Your task to perform on an android device: Open calendar and show me the first week of next month Image 0: 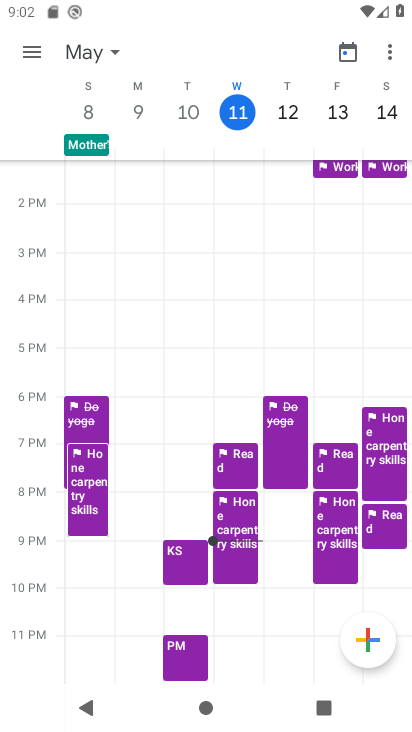
Step 0: press home button
Your task to perform on an android device: Open calendar and show me the first week of next month Image 1: 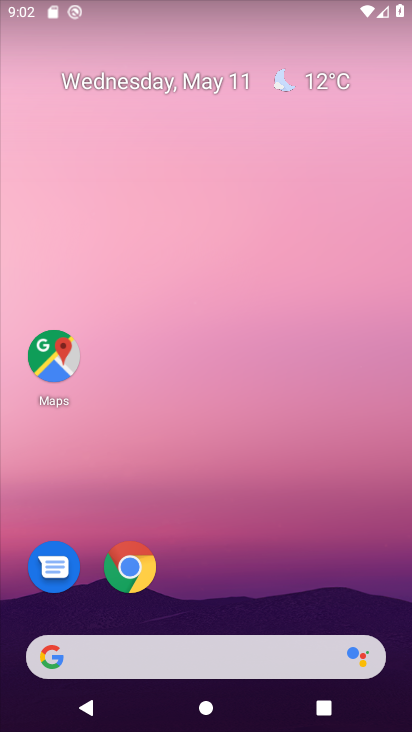
Step 1: drag from (251, 565) to (202, 120)
Your task to perform on an android device: Open calendar and show me the first week of next month Image 2: 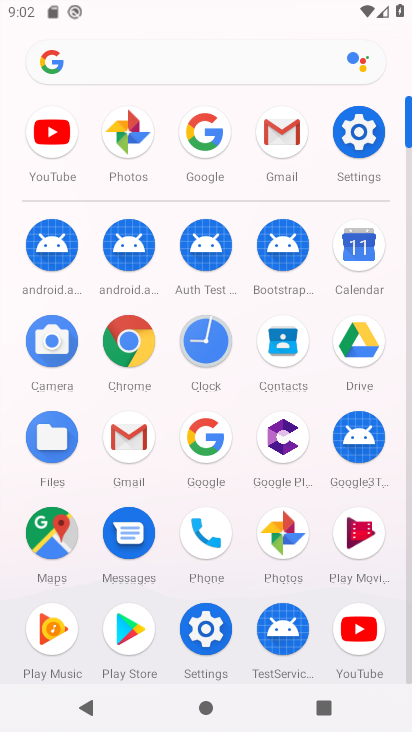
Step 2: click (284, 137)
Your task to perform on an android device: Open calendar and show me the first week of next month Image 3: 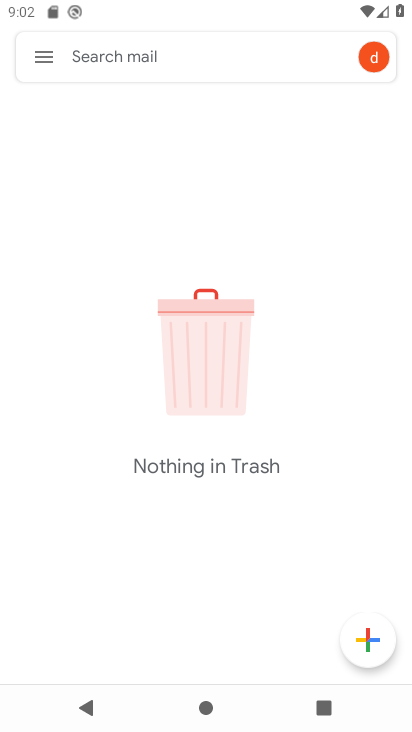
Step 3: press home button
Your task to perform on an android device: Open calendar and show me the first week of next month Image 4: 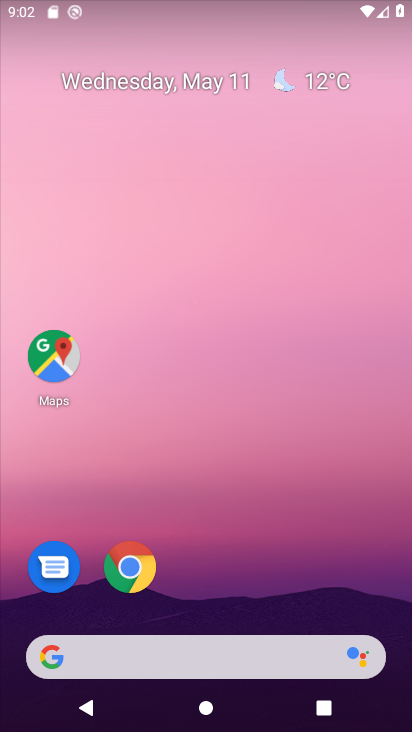
Step 4: click (161, 84)
Your task to perform on an android device: Open calendar and show me the first week of next month Image 5: 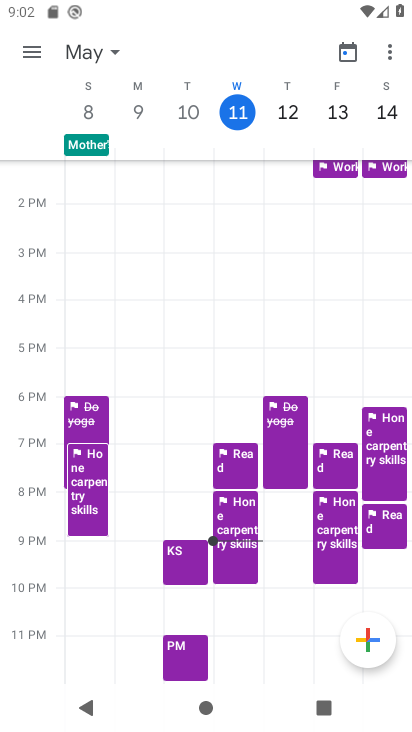
Step 5: click (109, 50)
Your task to perform on an android device: Open calendar and show me the first week of next month Image 6: 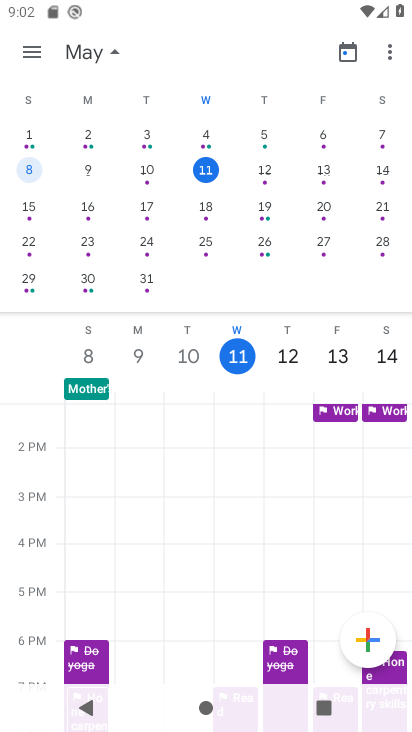
Step 6: drag from (352, 233) to (5, 202)
Your task to perform on an android device: Open calendar and show me the first week of next month Image 7: 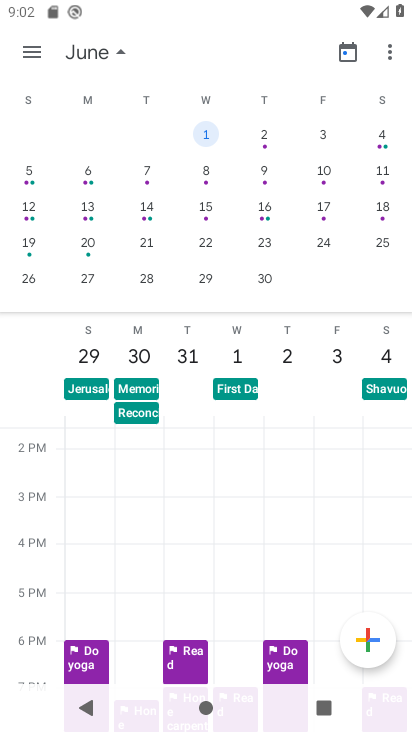
Step 7: click (213, 138)
Your task to perform on an android device: Open calendar and show me the first week of next month Image 8: 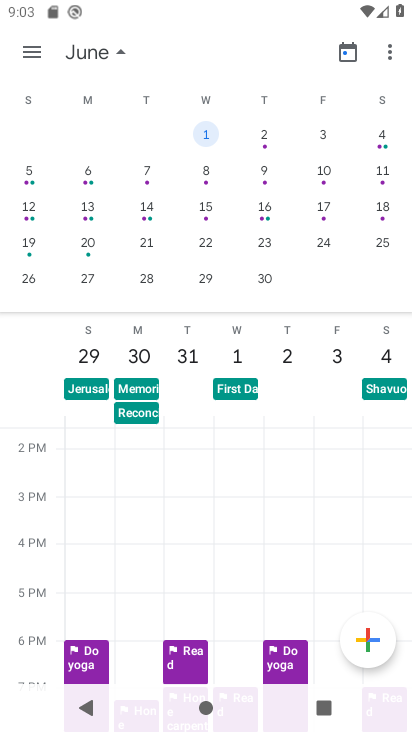
Step 8: task complete